Your task to perform on an android device: Open the stopwatch Image 0: 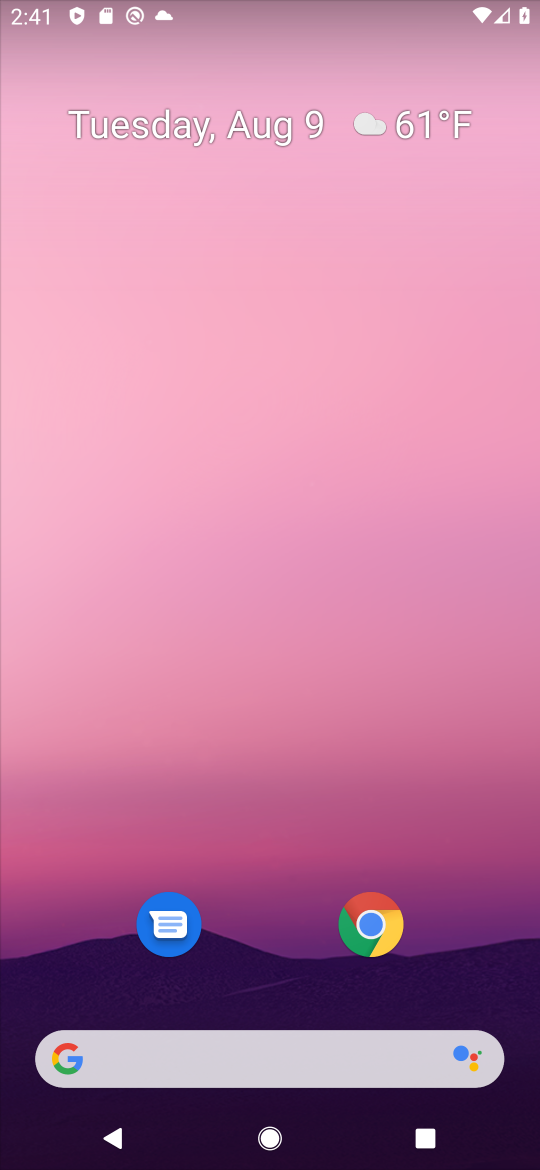
Step 0: drag from (301, 893) to (351, 29)
Your task to perform on an android device: Open the stopwatch Image 1: 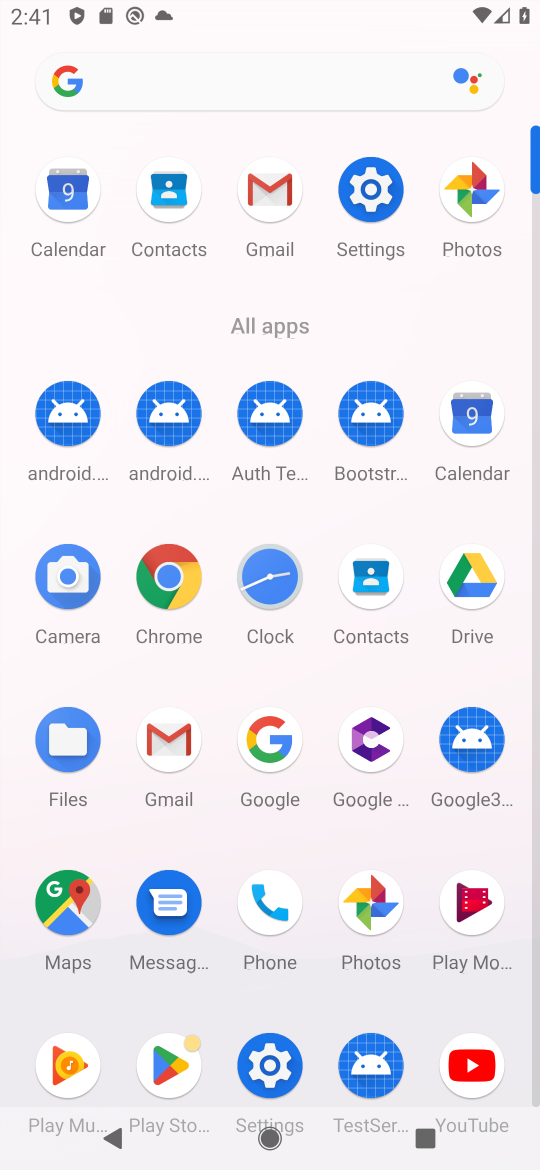
Step 1: click (274, 575)
Your task to perform on an android device: Open the stopwatch Image 2: 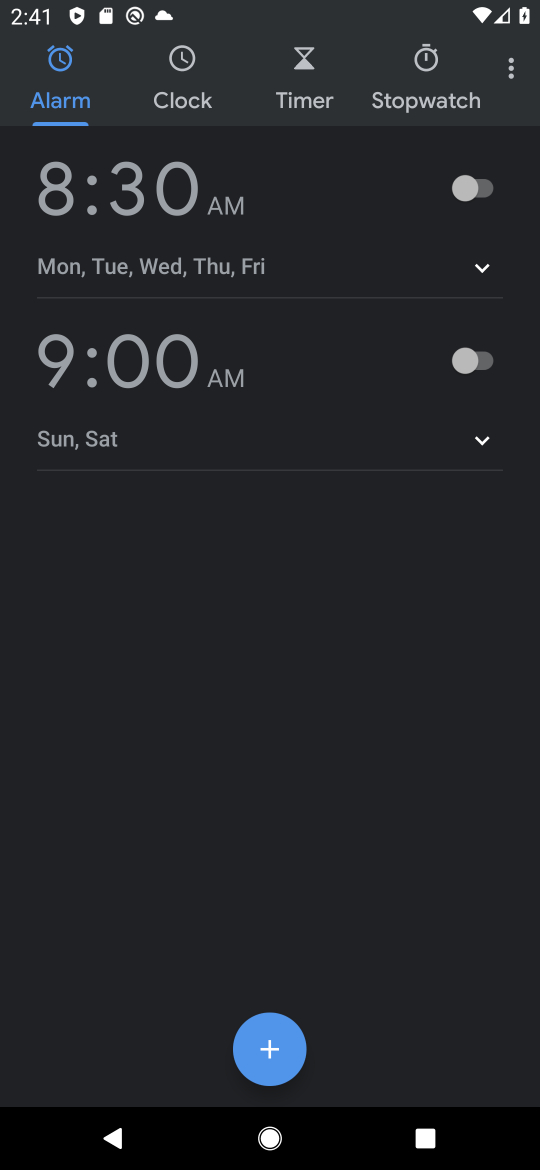
Step 2: click (433, 68)
Your task to perform on an android device: Open the stopwatch Image 3: 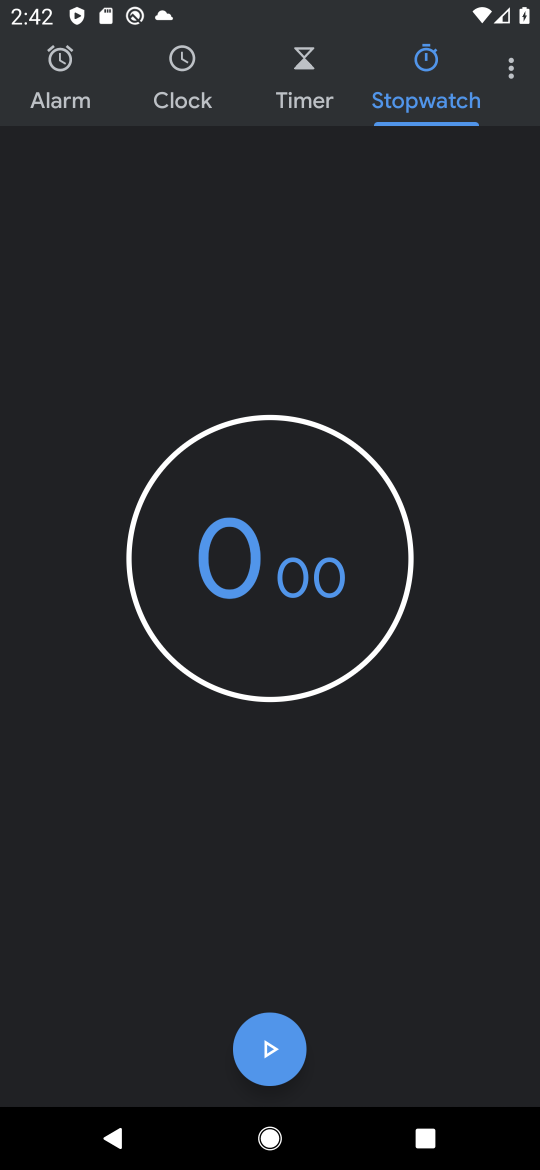
Step 3: task complete